Your task to perform on an android device: open app "Google Play Games" (install if not already installed) Image 0: 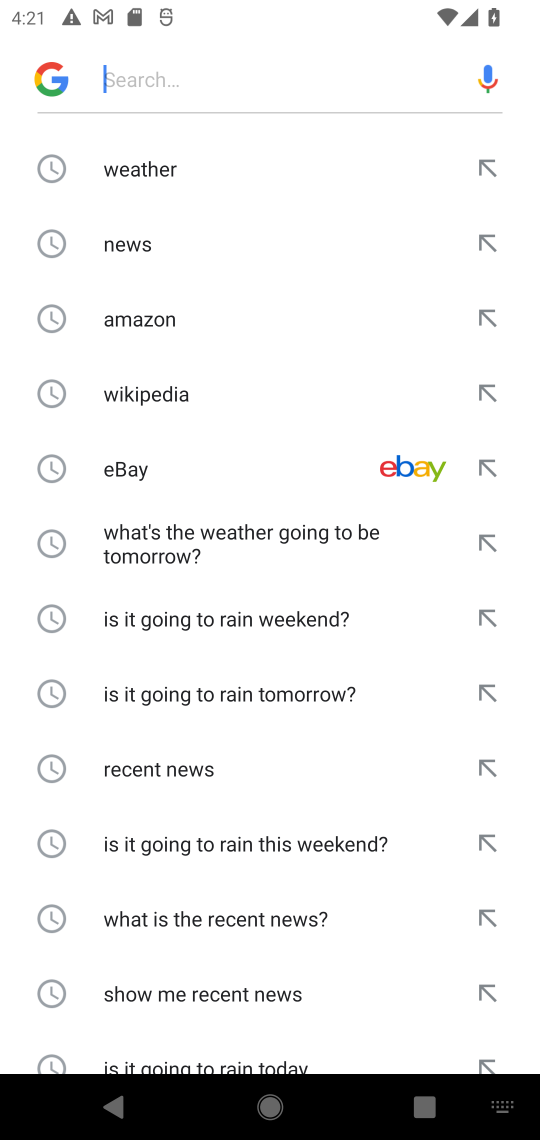
Step 0: press home button
Your task to perform on an android device: open app "Google Play Games" (install if not already installed) Image 1: 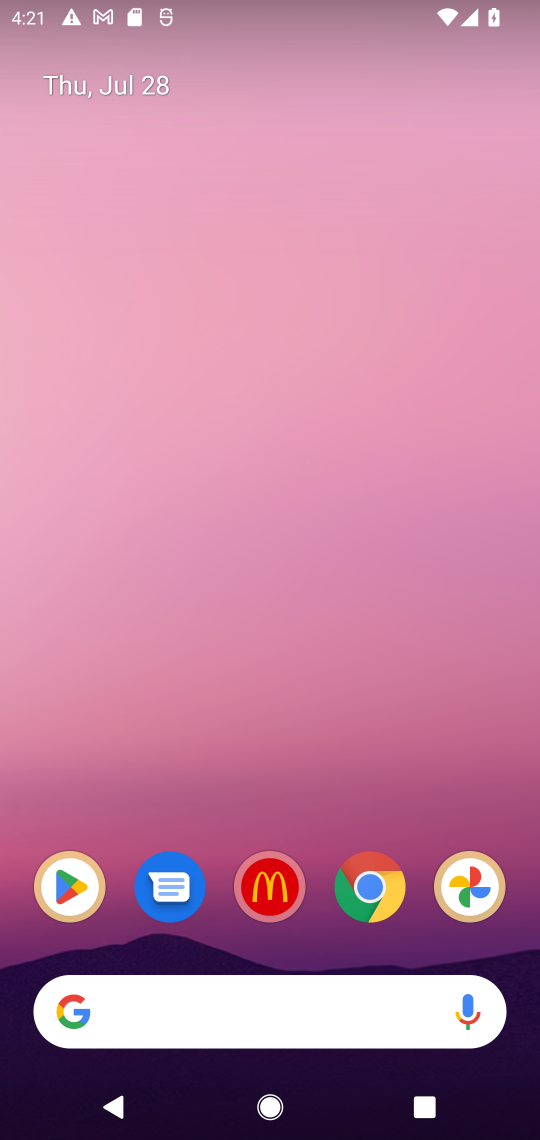
Step 1: click (78, 882)
Your task to perform on an android device: open app "Google Play Games" (install if not already installed) Image 2: 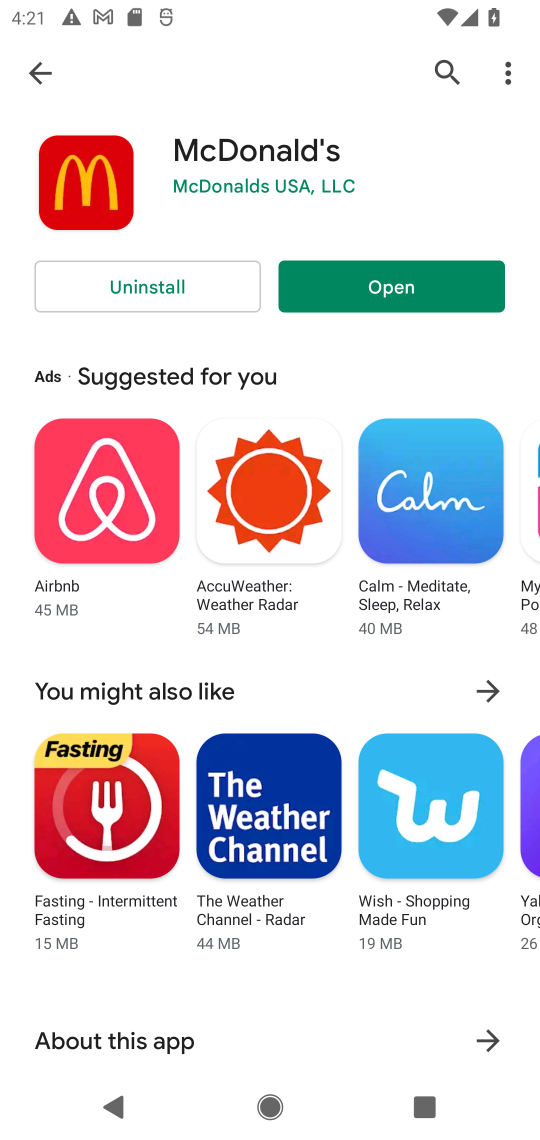
Step 2: click (41, 57)
Your task to perform on an android device: open app "Google Play Games" (install if not already installed) Image 3: 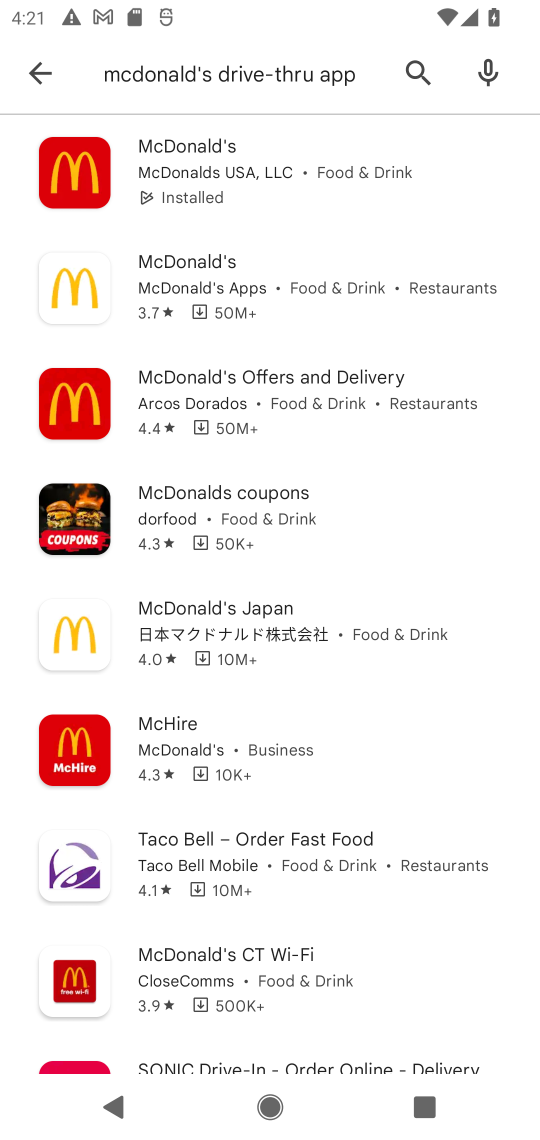
Step 3: click (35, 65)
Your task to perform on an android device: open app "Google Play Games" (install if not already installed) Image 4: 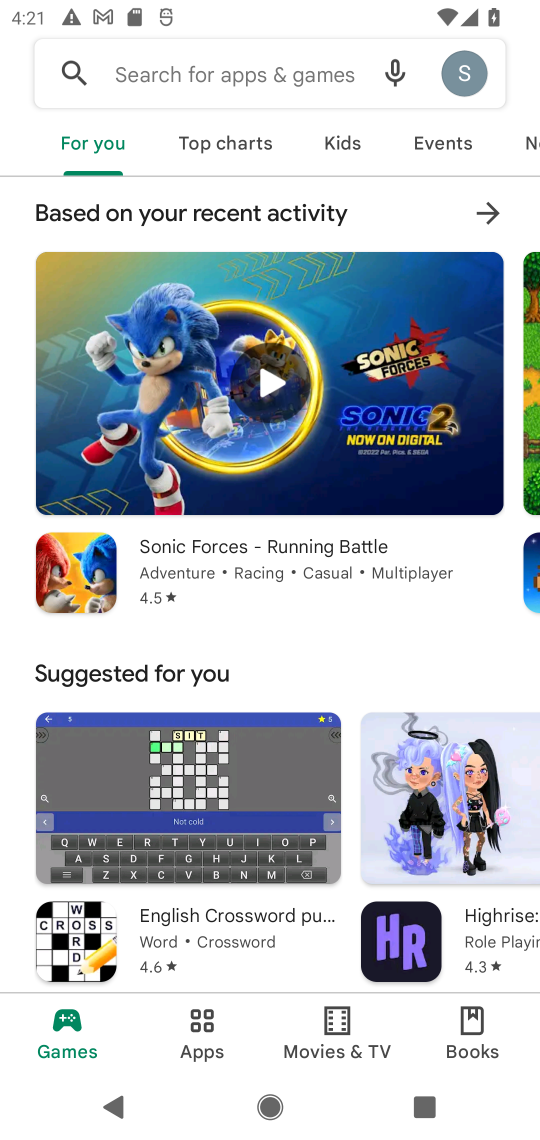
Step 4: click (210, 83)
Your task to perform on an android device: open app "Google Play Games" (install if not already installed) Image 5: 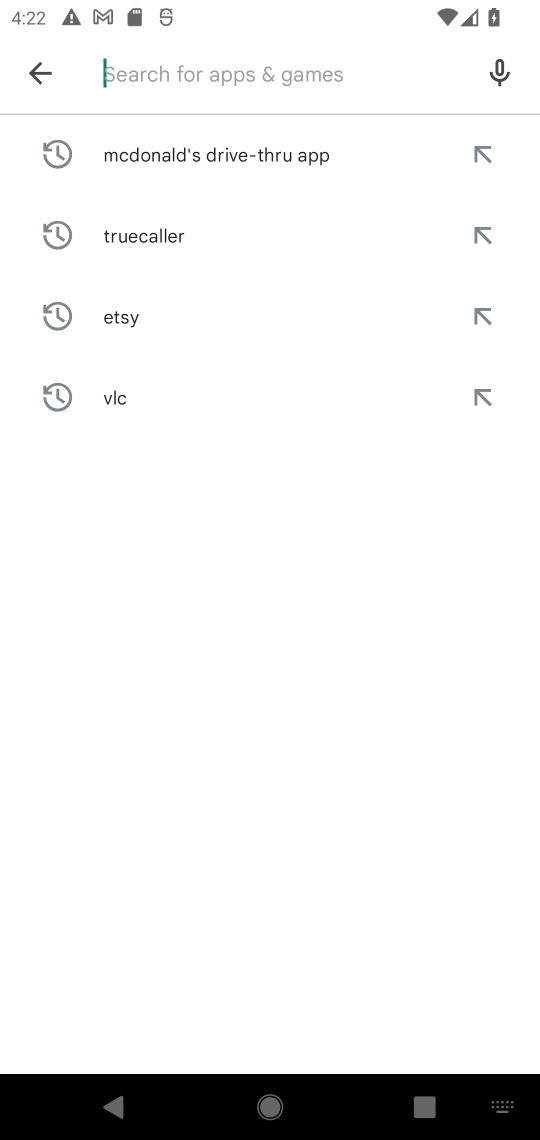
Step 5: type "googlePlay Games"
Your task to perform on an android device: open app "Google Play Games" (install if not already installed) Image 6: 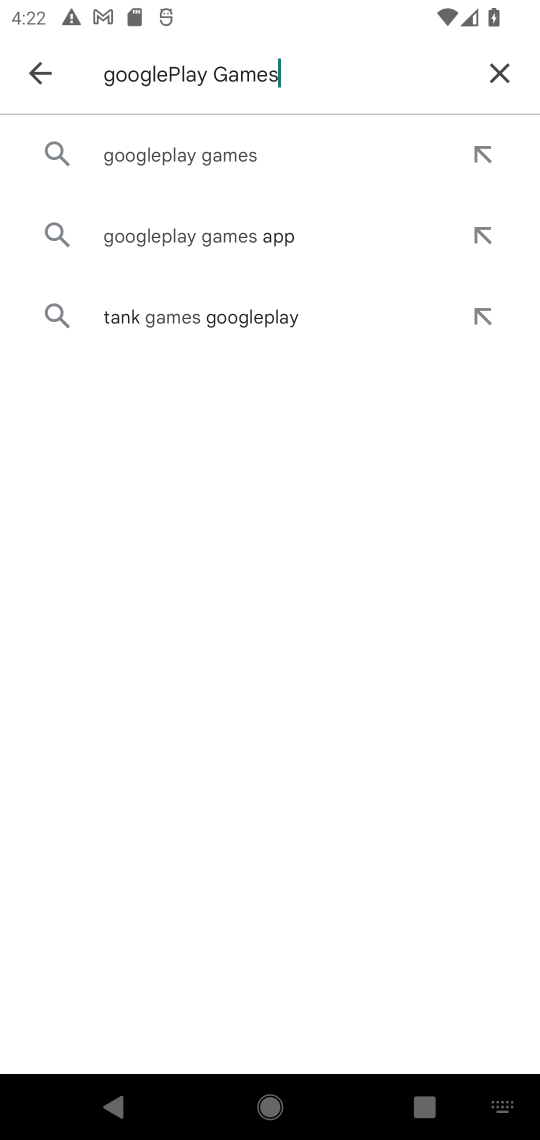
Step 6: click (207, 152)
Your task to perform on an android device: open app "Google Play Games" (install if not already installed) Image 7: 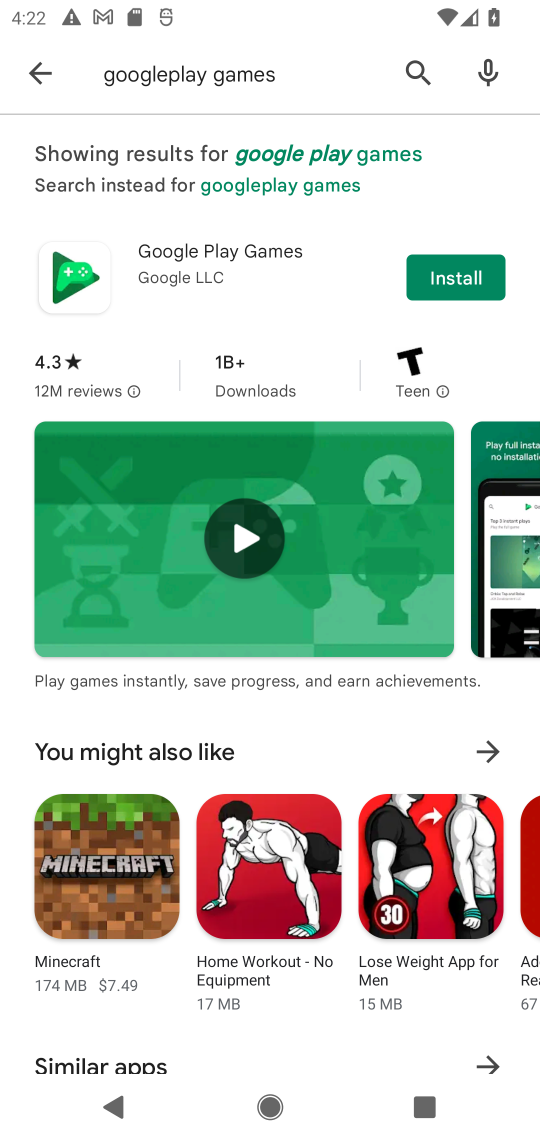
Step 7: click (468, 280)
Your task to perform on an android device: open app "Google Play Games" (install if not already installed) Image 8: 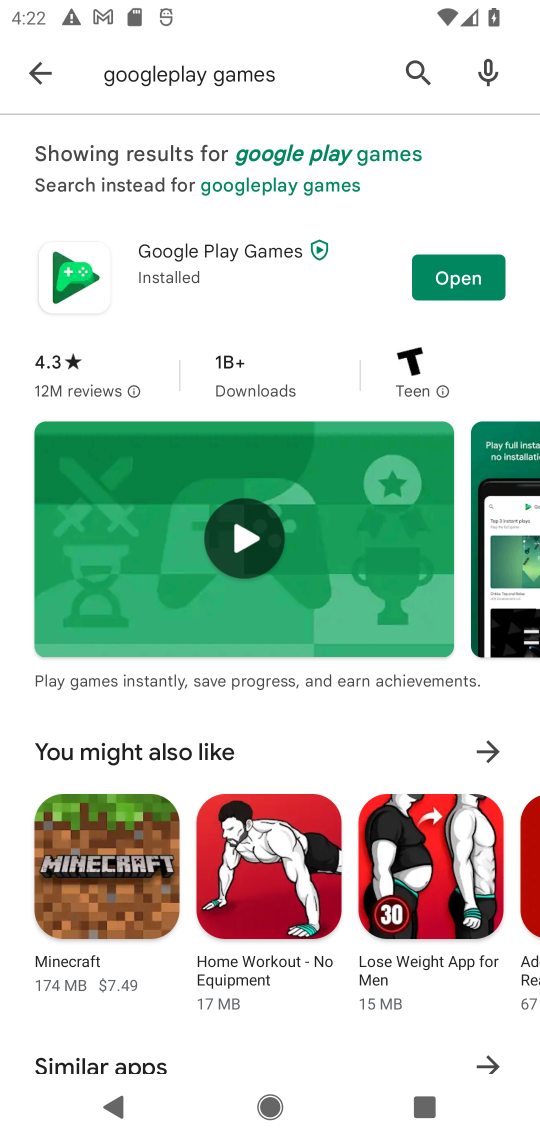
Step 8: click (468, 269)
Your task to perform on an android device: open app "Google Play Games" (install if not already installed) Image 9: 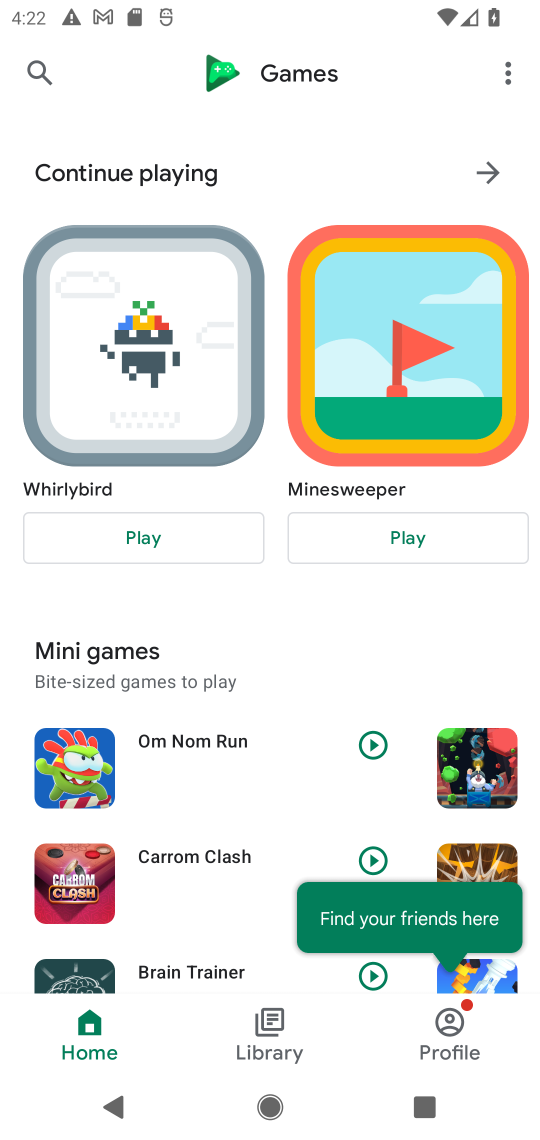
Step 9: task complete